Your task to perform on an android device: toggle notification dots Image 0: 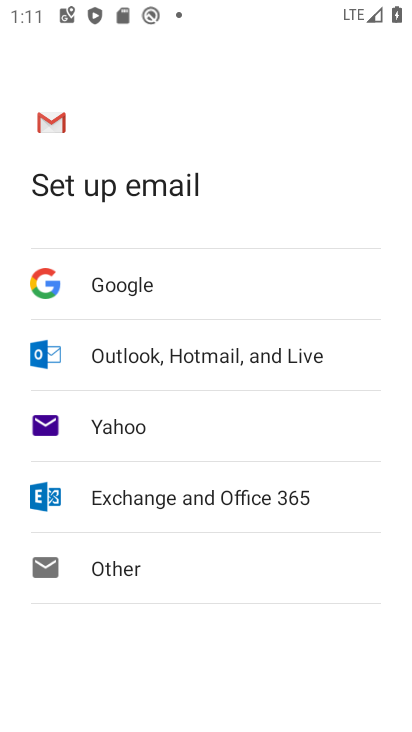
Step 0: press home button
Your task to perform on an android device: toggle notification dots Image 1: 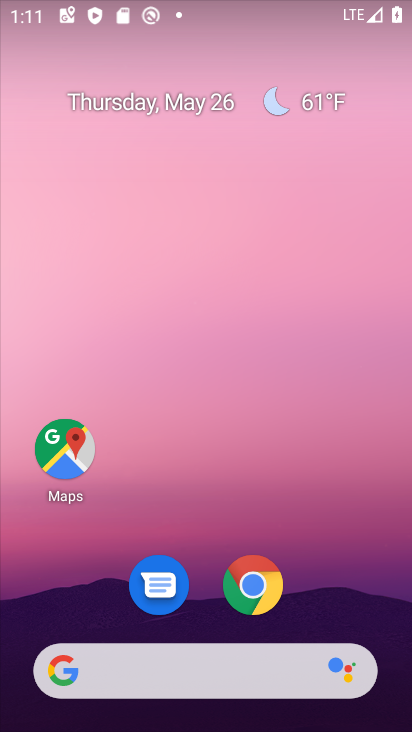
Step 1: drag from (251, 523) to (248, 55)
Your task to perform on an android device: toggle notification dots Image 2: 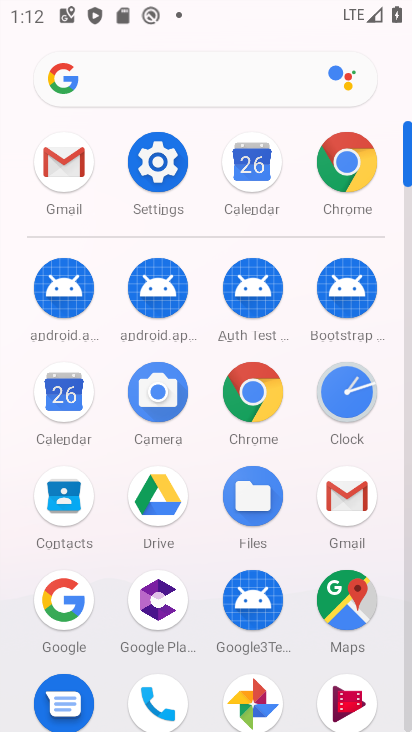
Step 2: click (164, 161)
Your task to perform on an android device: toggle notification dots Image 3: 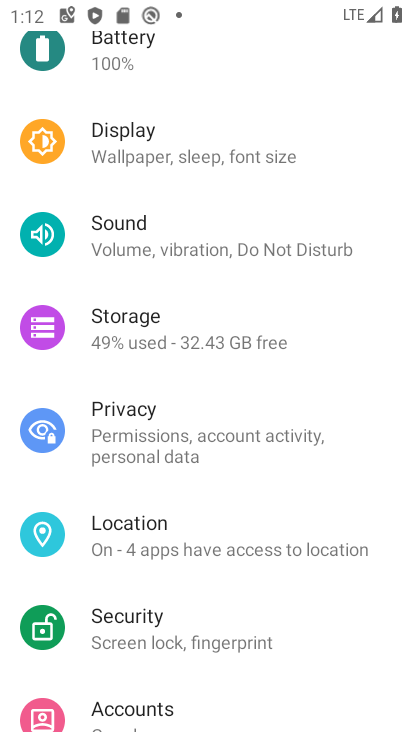
Step 3: drag from (226, 279) to (243, 649)
Your task to perform on an android device: toggle notification dots Image 4: 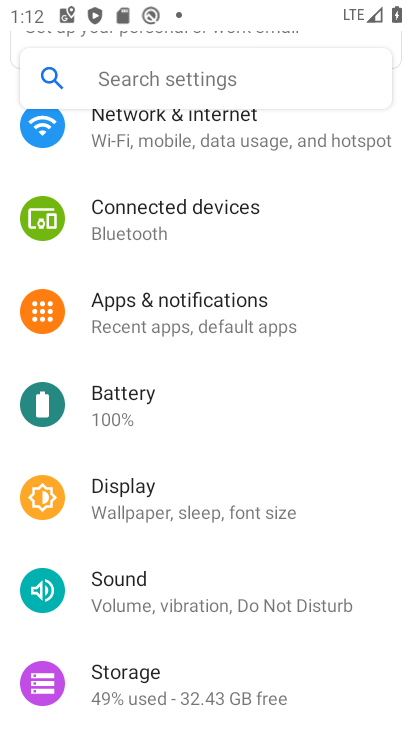
Step 4: click (228, 311)
Your task to perform on an android device: toggle notification dots Image 5: 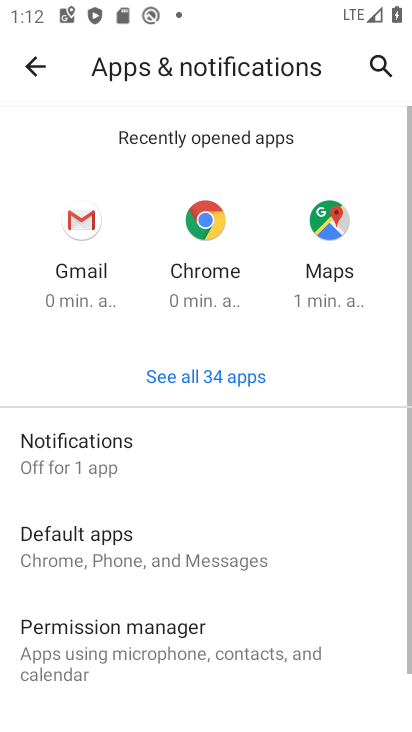
Step 5: click (202, 461)
Your task to perform on an android device: toggle notification dots Image 6: 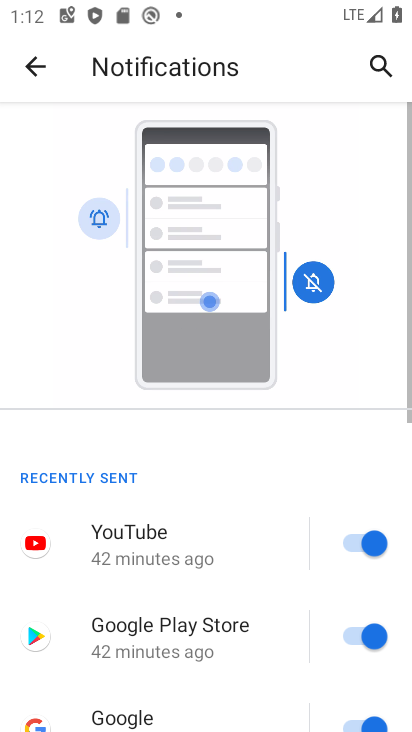
Step 6: drag from (238, 605) to (291, 9)
Your task to perform on an android device: toggle notification dots Image 7: 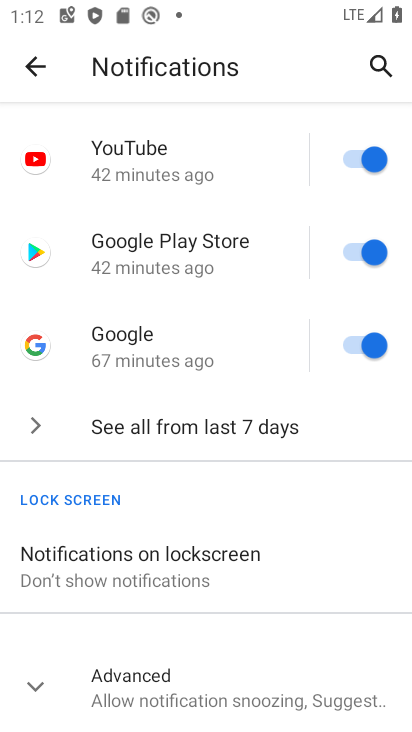
Step 7: click (34, 687)
Your task to perform on an android device: toggle notification dots Image 8: 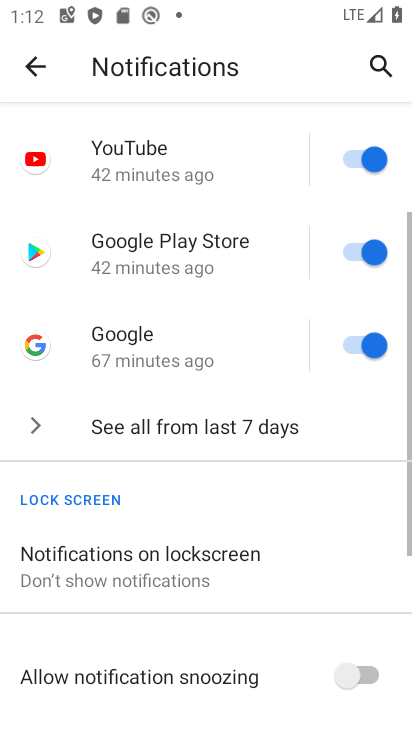
Step 8: drag from (224, 659) to (261, 276)
Your task to perform on an android device: toggle notification dots Image 9: 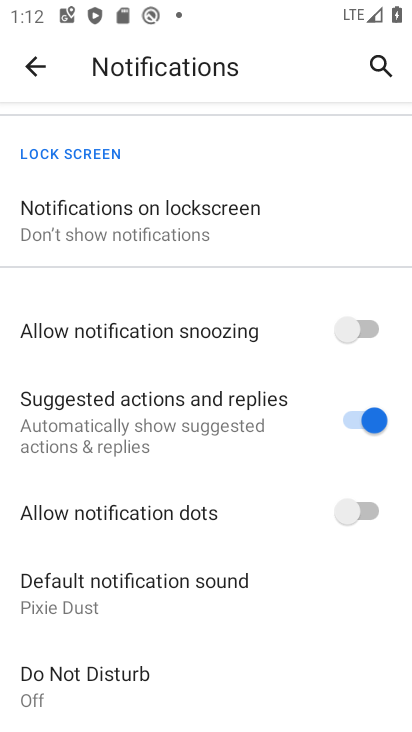
Step 9: click (364, 501)
Your task to perform on an android device: toggle notification dots Image 10: 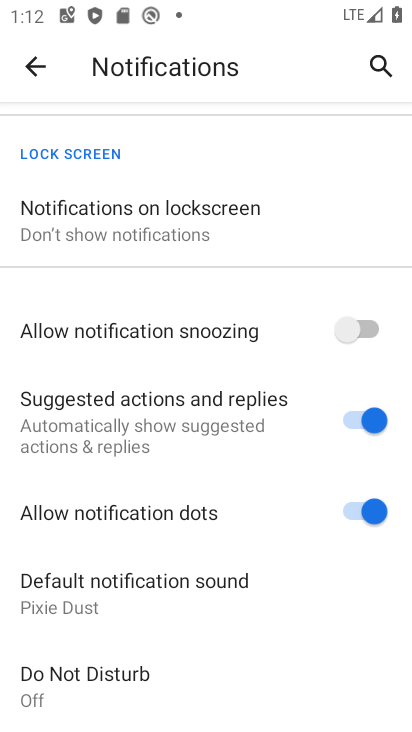
Step 10: task complete